Your task to perform on an android device: set an alarm Image 0: 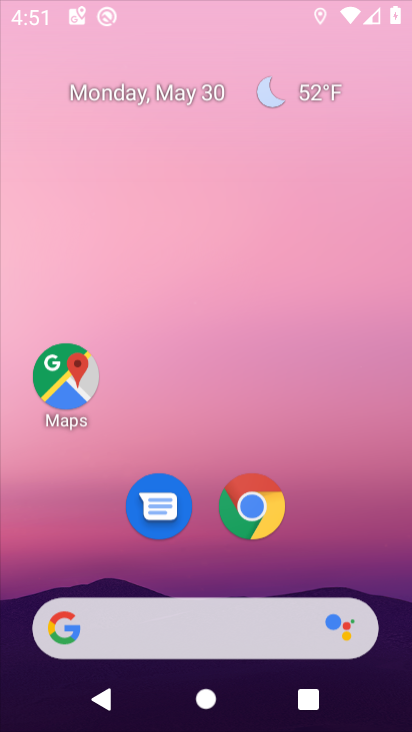
Step 0: click (367, 93)
Your task to perform on an android device: set an alarm Image 1: 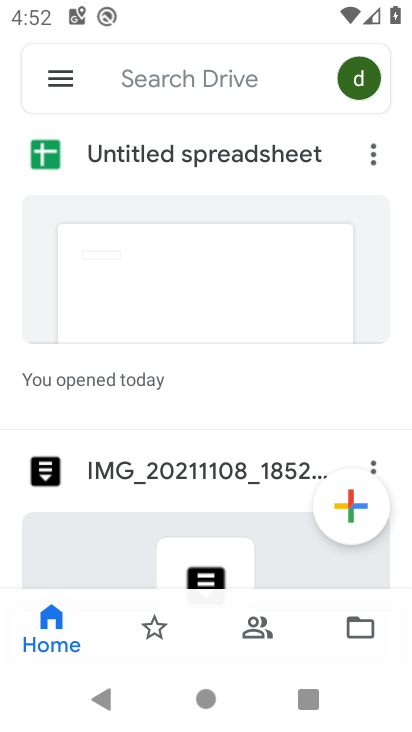
Step 1: press home button
Your task to perform on an android device: set an alarm Image 2: 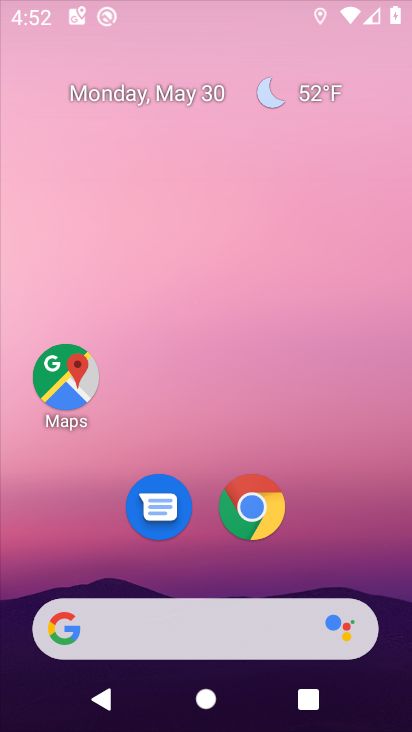
Step 2: drag from (319, 584) to (315, 133)
Your task to perform on an android device: set an alarm Image 3: 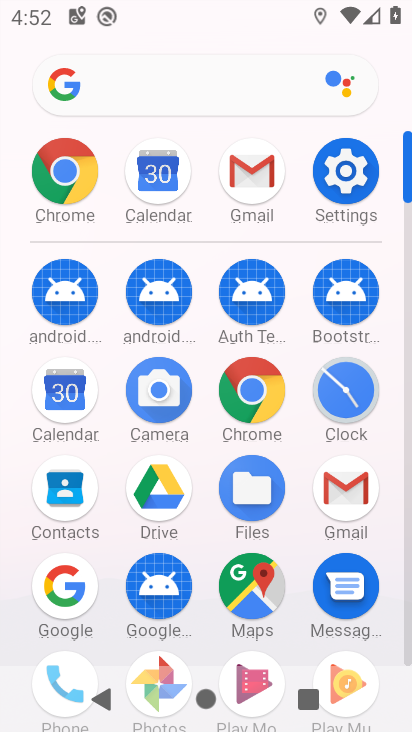
Step 3: click (347, 401)
Your task to perform on an android device: set an alarm Image 4: 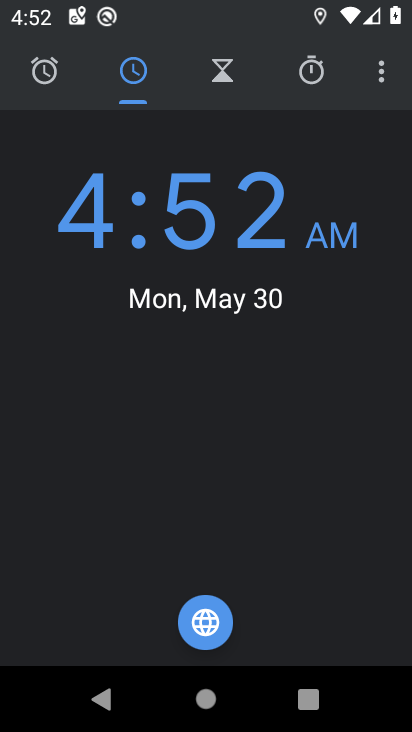
Step 4: click (33, 88)
Your task to perform on an android device: set an alarm Image 5: 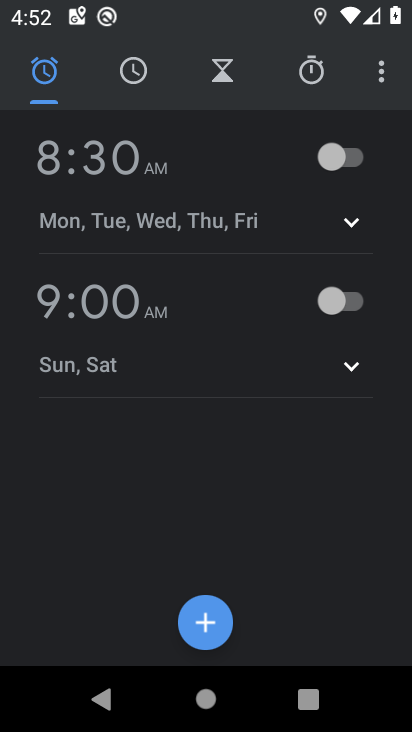
Step 5: click (197, 588)
Your task to perform on an android device: set an alarm Image 6: 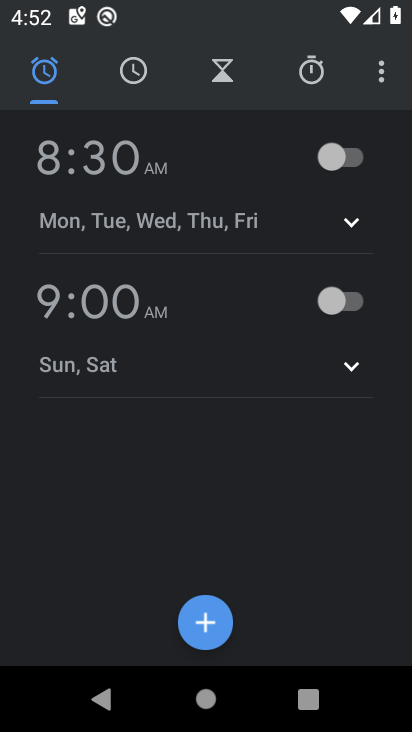
Step 6: click (201, 624)
Your task to perform on an android device: set an alarm Image 7: 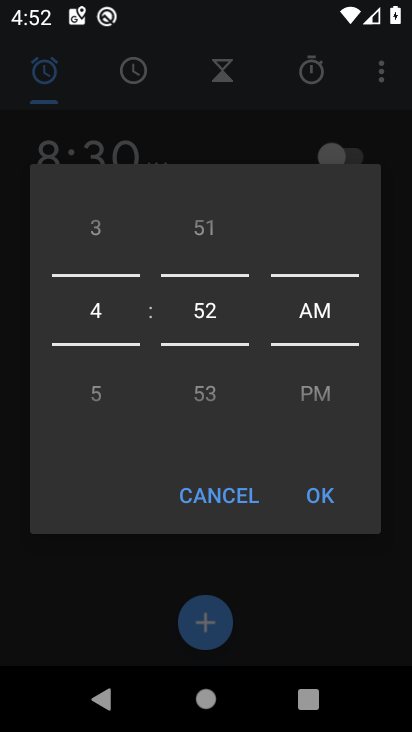
Step 7: click (311, 504)
Your task to perform on an android device: set an alarm Image 8: 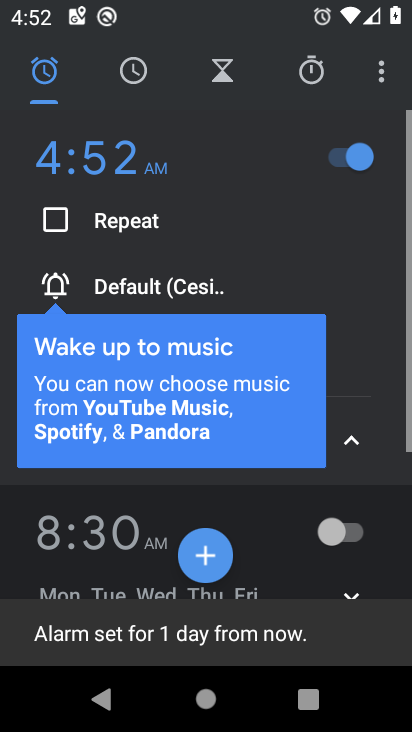
Step 8: task complete